Your task to perform on an android device: open device folders in google photos Image 0: 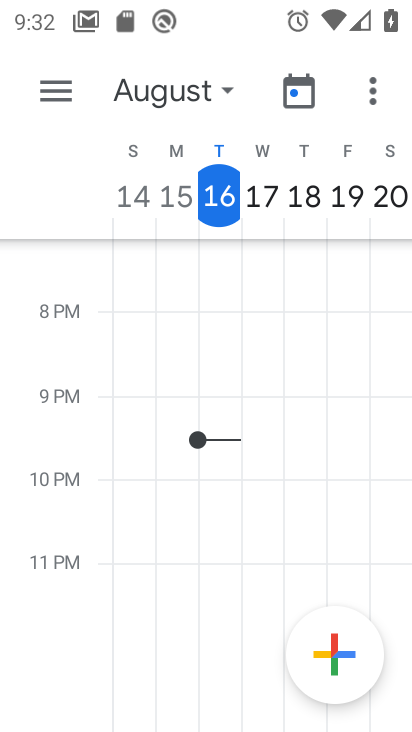
Step 0: press home button
Your task to perform on an android device: open device folders in google photos Image 1: 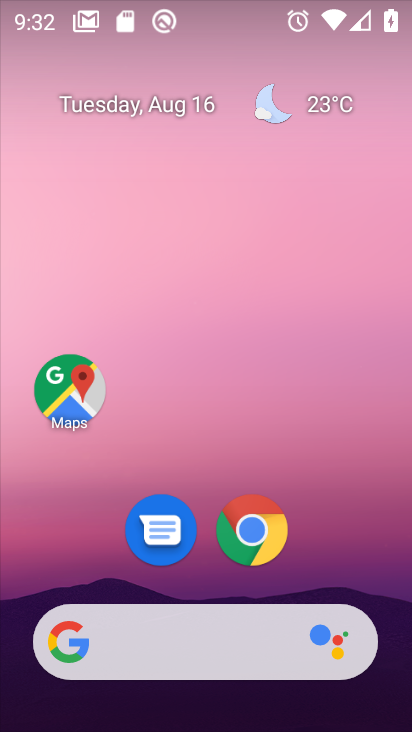
Step 1: drag from (328, 526) to (303, 119)
Your task to perform on an android device: open device folders in google photos Image 2: 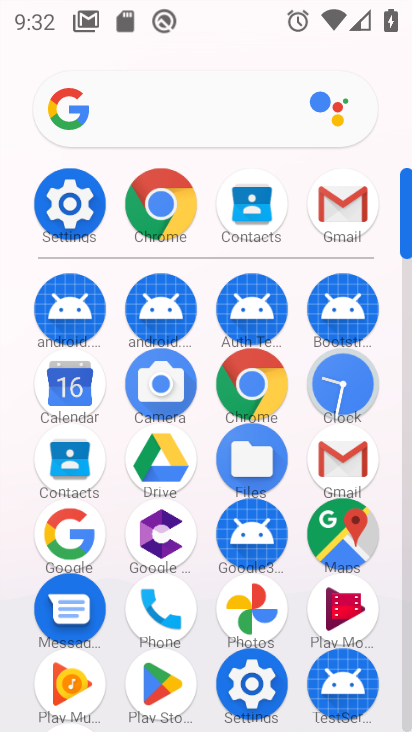
Step 2: click (248, 599)
Your task to perform on an android device: open device folders in google photos Image 3: 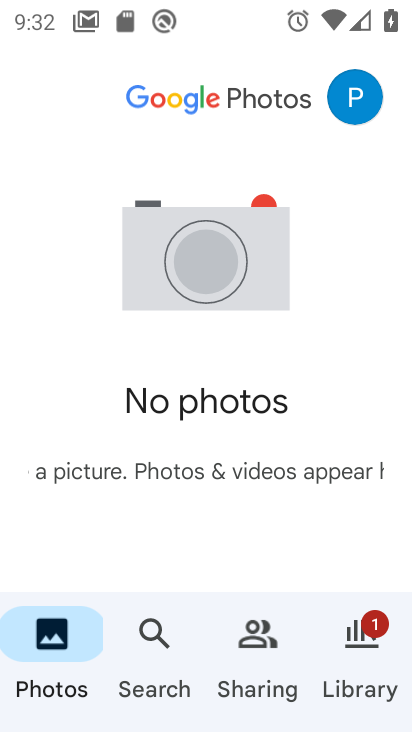
Step 3: click (379, 624)
Your task to perform on an android device: open device folders in google photos Image 4: 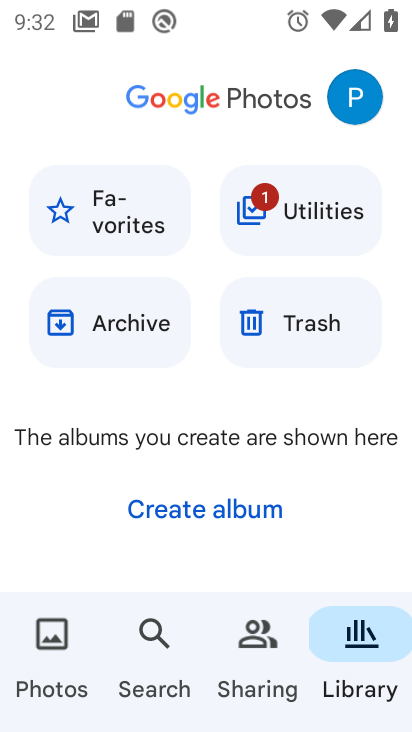
Step 4: click (316, 214)
Your task to perform on an android device: open device folders in google photos Image 5: 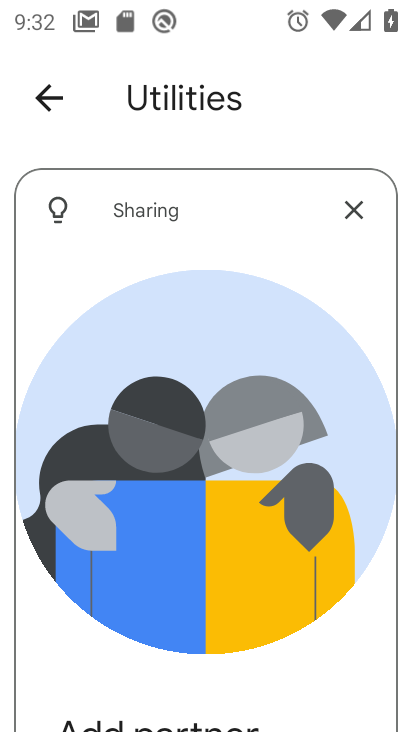
Step 5: drag from (224, 626) to (269, 225)
Your task to perform on an android device: open device folders in google photos Image 6: 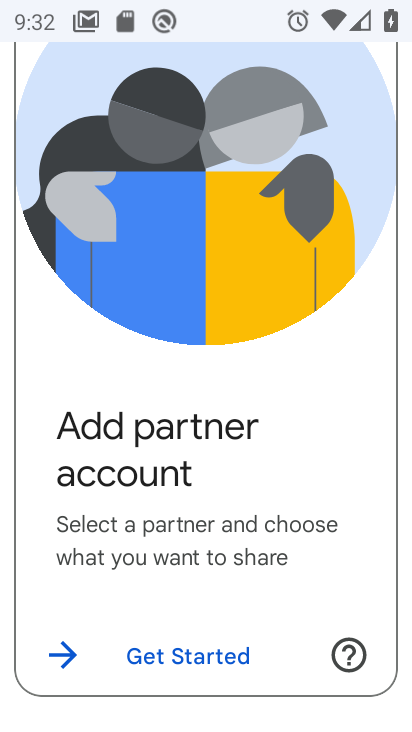
Step 6: drag from (190, 596) to (317, 178)
Your task to perform on an android device: open device folders in google photos Image 7: 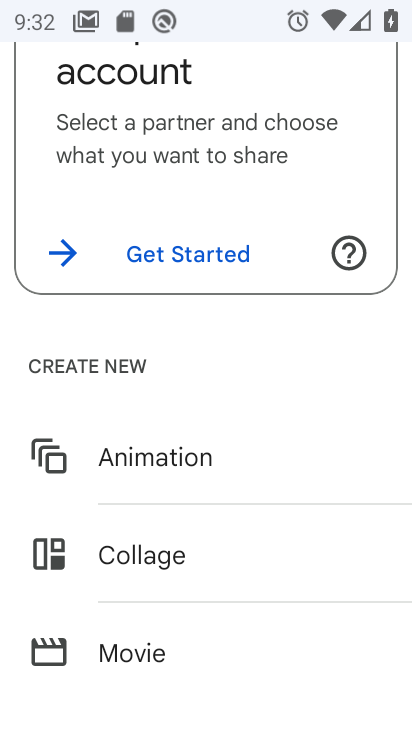
Step 7: drag from (231, 584) to (318, 216)
Your task to perform on an android device: open device folders in google photos Image 8: 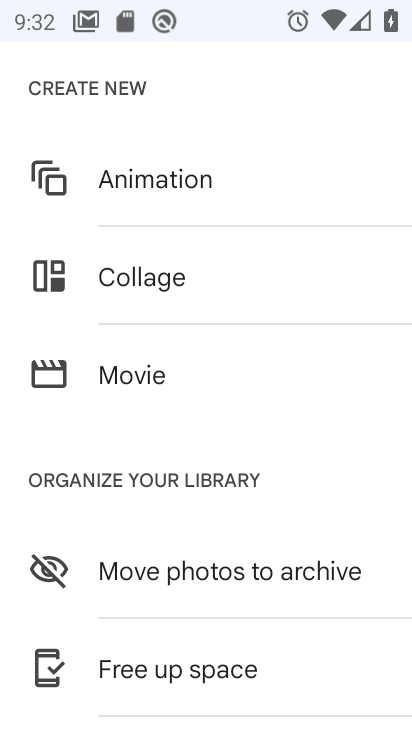
Step 8: drag from (222, 610) to (291, 275)
Your task to perform on an android device: open device folders in google photos Image 9: 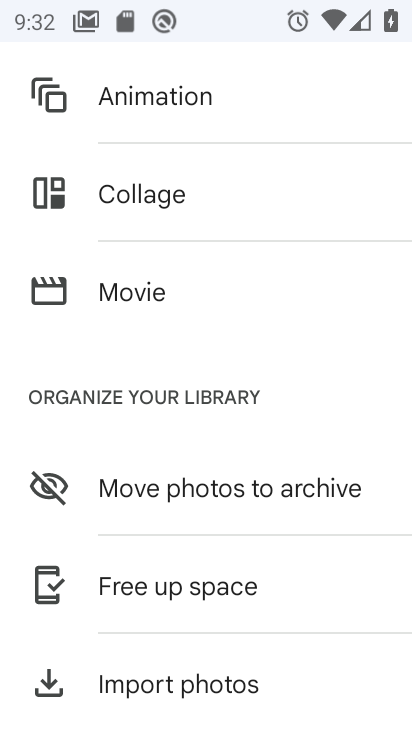
Step 9: drag from (293, 243) to (240, 651)
Your task to perform on an android device: open device folders in google photos Image 10: 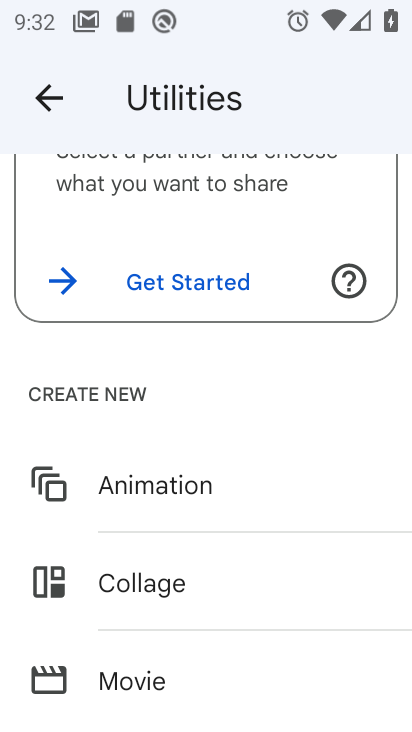
Step 10: drag from (241, 349) to (332, 185)
Your task to perform on an android device: open device folders in google photos Image 11: 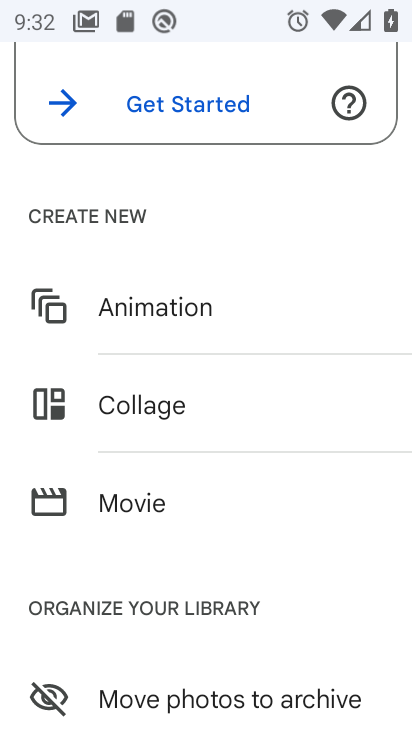
Step 11: drag from (243, 506) to (280, 242)
Your task to perform on an android device: open device folders in google photos Image 12: 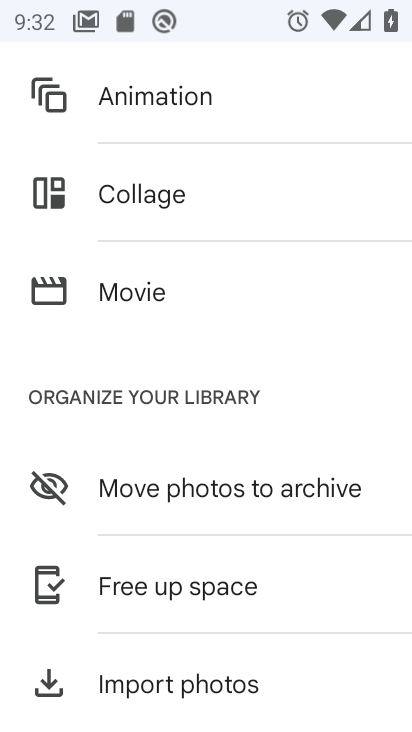
Step 12: drag from (192, 605) to (229, 232)
Your task to perform on an android device: open device folders in google photos Image 13: 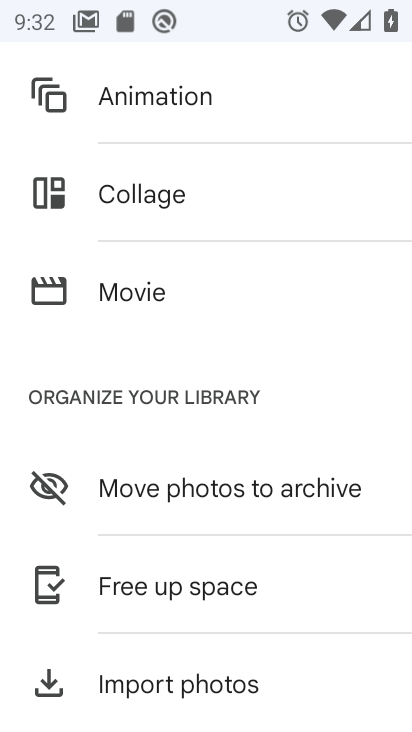
Step 13: press back button
Your task to perform on an android device: open device folders in google photos Image 14: 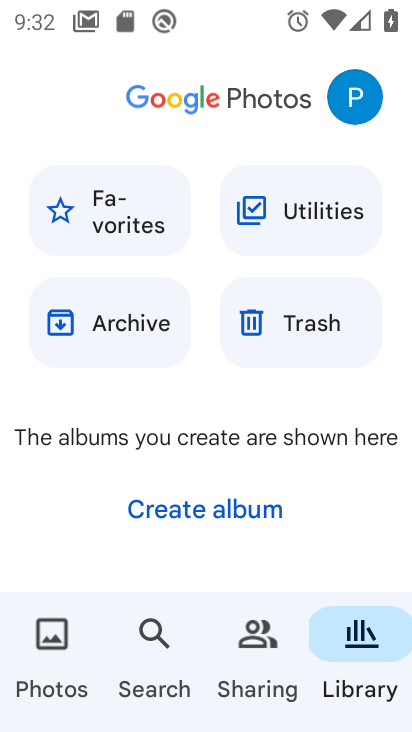
Step 14: click (366, 84)
Your task to perform on an android device: open device folders in google photos Image 15: 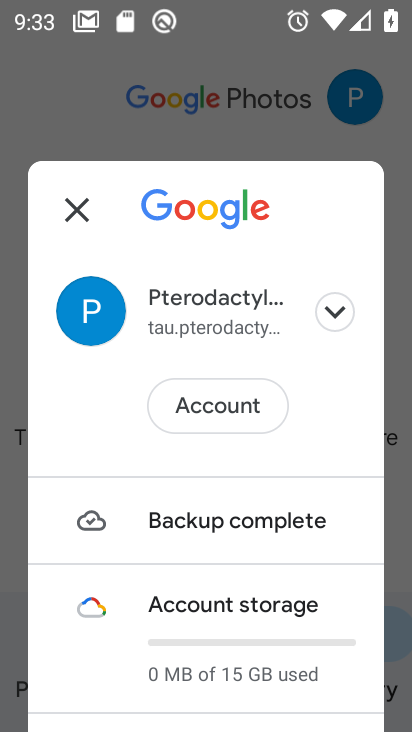
Step 15: drag from (240, 604) to (268, 243)
Your task to perform on an android device: open device folders in google photos Image 16: 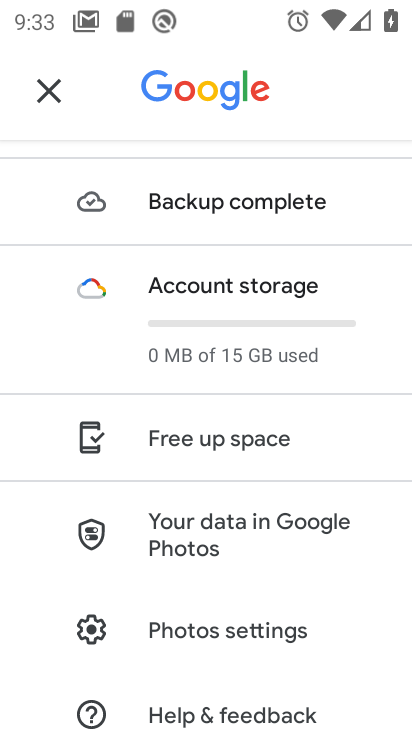
Step 16: drag from (225, 576) to (227, 312)
Your task to perform on an android device: open device folders in google photos Image 17: 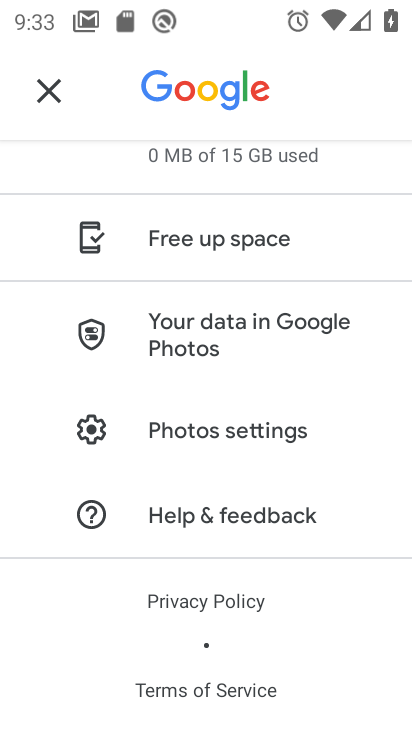
Step 17: click (50, 91)
Your task to perform on an android device: open device folders in google photos Image 18: 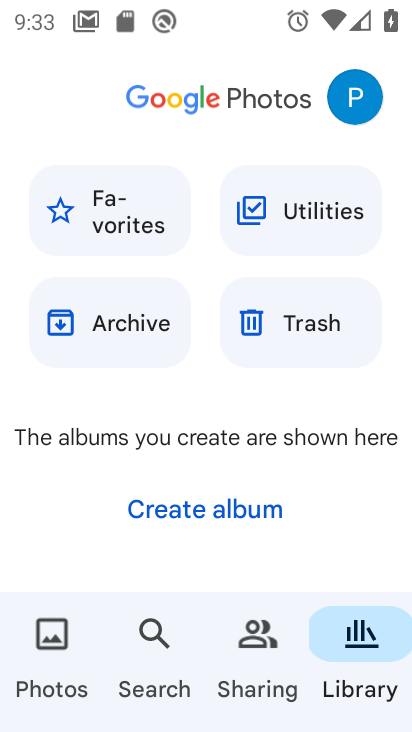
Step 18: click (80, 320)
Your task to perform on an android device: open device folders in google photos Image 19: 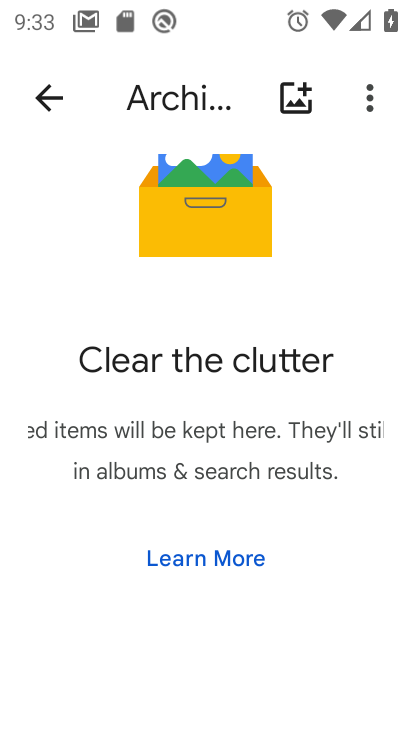
Step 19: click (43, 100)
Your task to perform on an android device: open device folders in google photos Image 20: 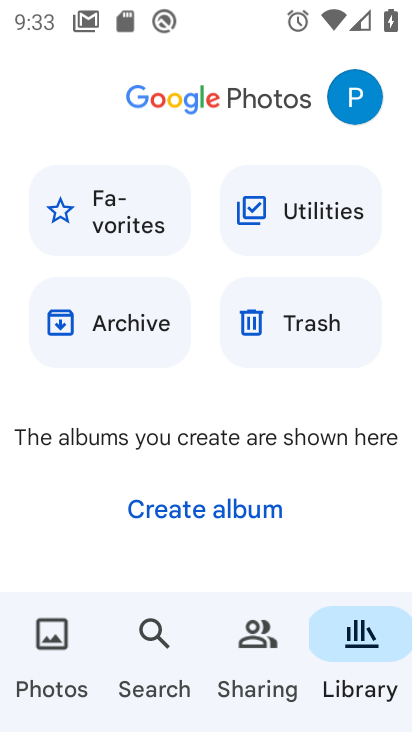
Step 20: click (326, 191)
Your task to perform on an android device: open device folders in google photos Image 21: 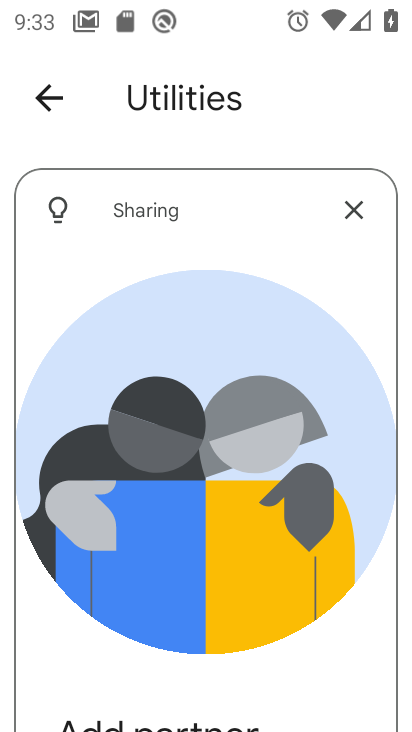
Step 21: task complete